Your task to perform on an android device: Search for alienware area 51 on walmart, select the first entry, and add it to the cart. Image 0: 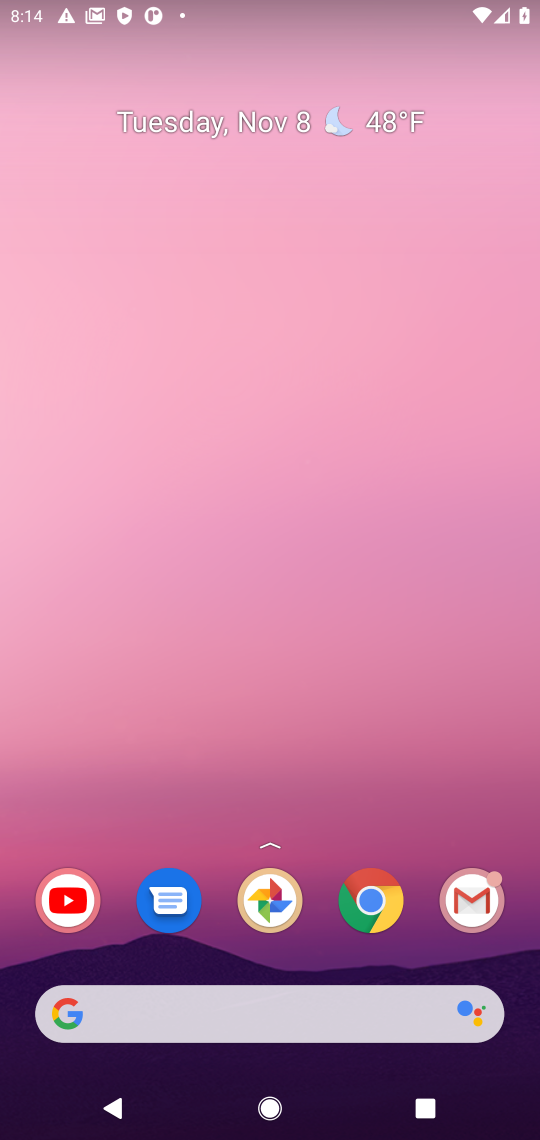
Step 0: click (374, 916)
Your task to perform on an android device: Search for alienware area 51 on walmart, select the first entry, and add it to the cart. Image 1: 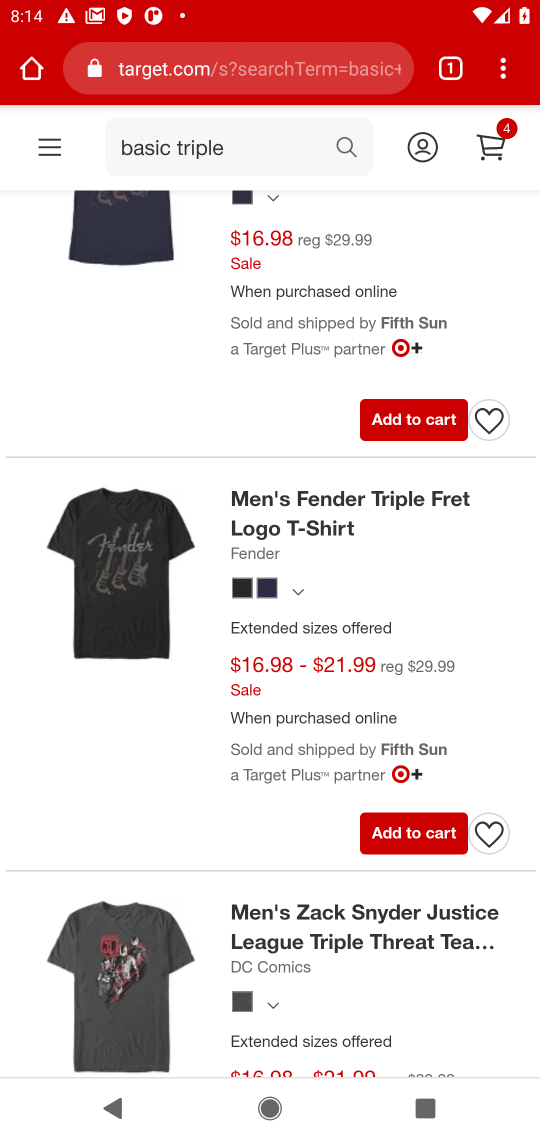
Step 1: click (275, 63)
Your task to perform on an android device: Search for alienware area 51 on walmart, select the first entry, and add it to the cart. Image 2: 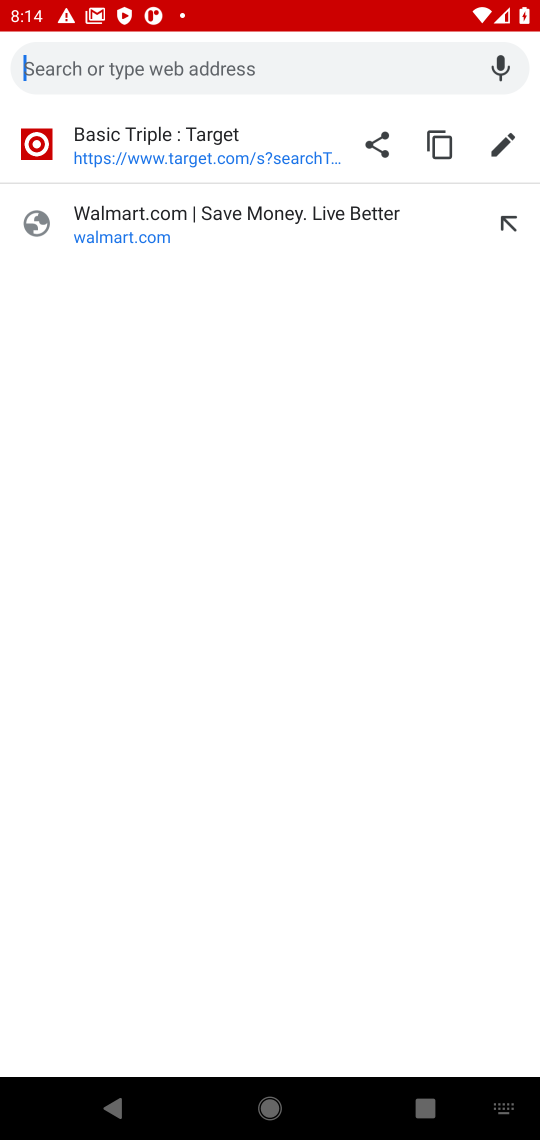
Step 2: type "walmart"
Your task to perform on an android device: Search for alienware area 51 on walmart, select the first entry, and add it to the cart. Image 3: 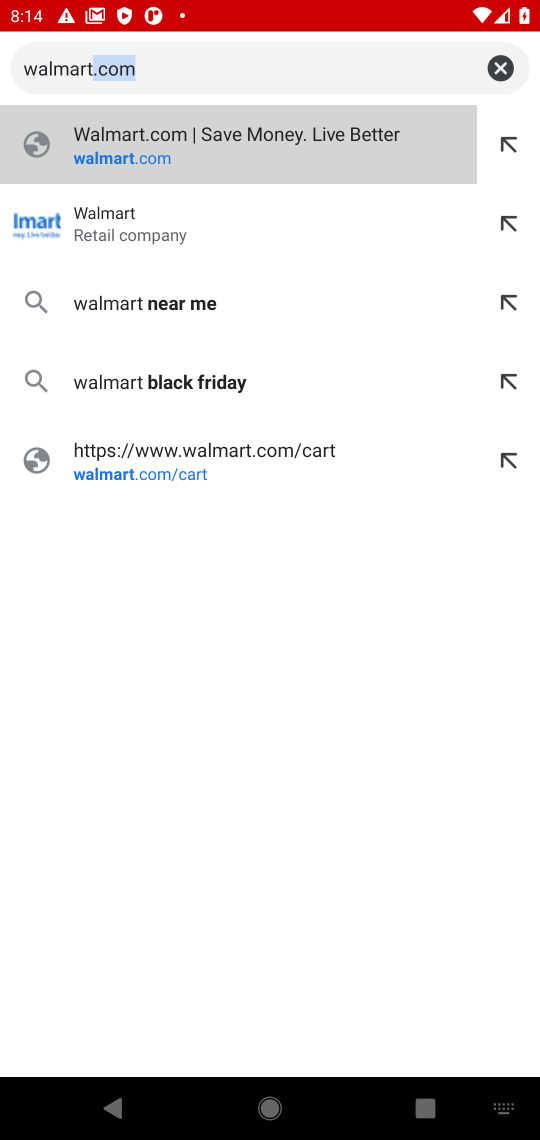
Step 3: type ""
Your task to perform on an android device: Search for alienware area 51 on walmart, select the first entry, and add it to the cart. Image 4: 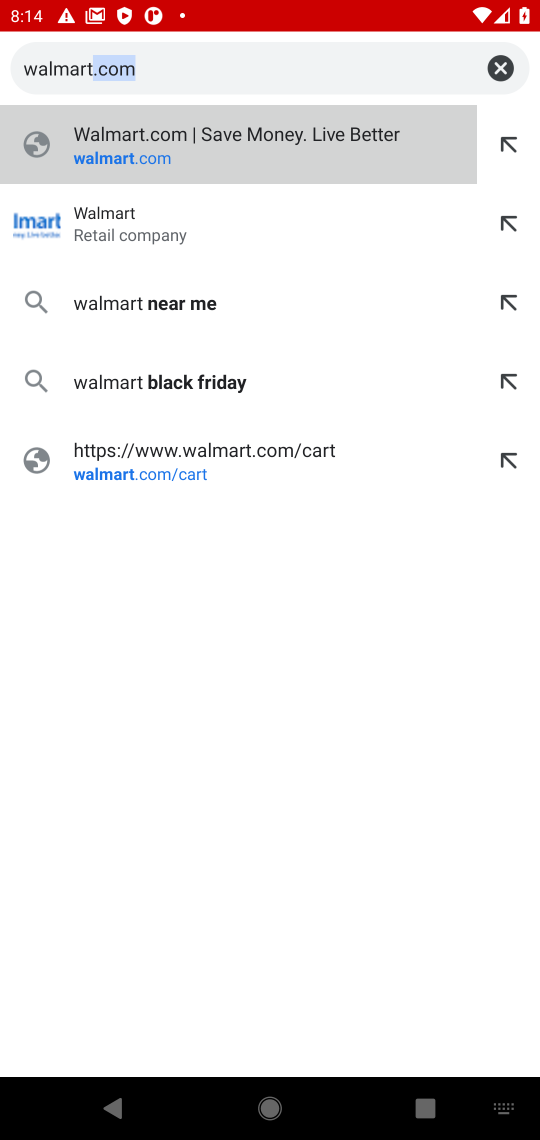
Step 4: click (88, 223)
Your task to perform on an android device: Search for alienware area 51 on walmart, select the first entry, and add it to the cart. Image 5: 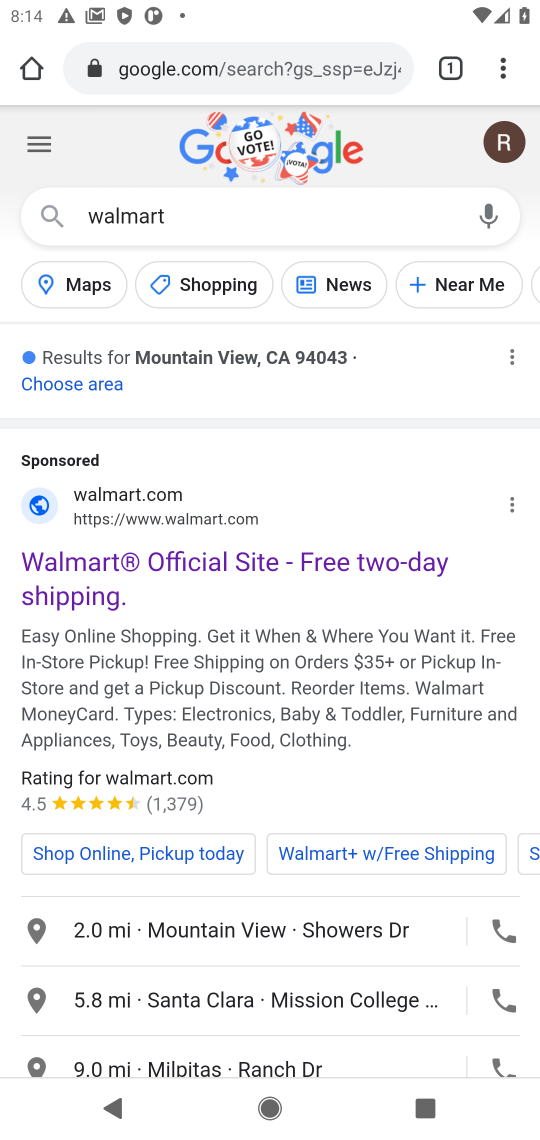
Step 5: drag from (287, 824) to (259, 254)
Your task to perform on an android device: Search for alienware area 51 on walmart, select the first entry, and add it to the cart. Image 6: 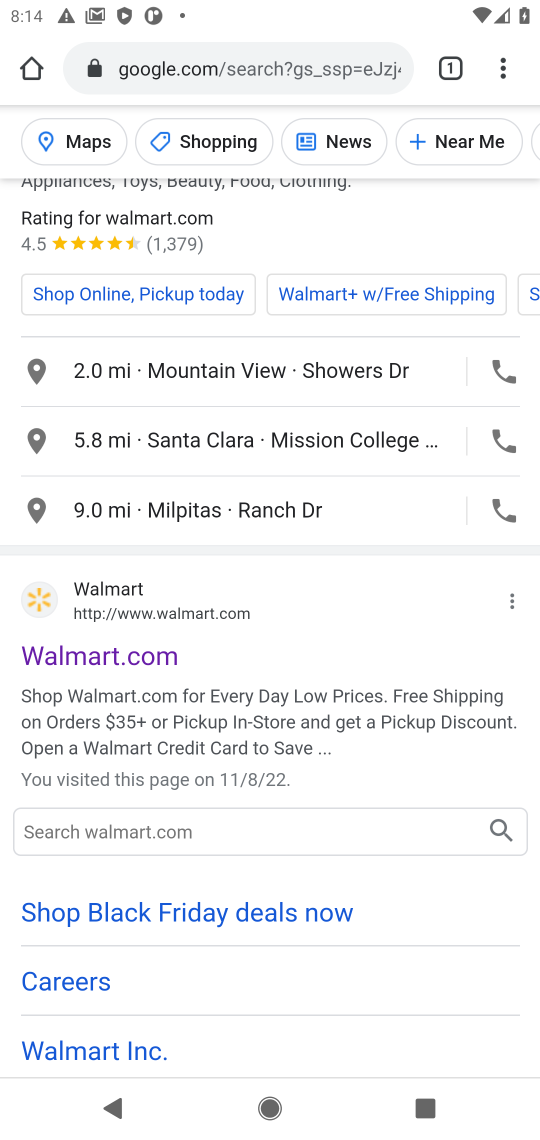
Step 6: click (62, 654)
Your task to perform on an android device: Search for alienware area 51 on walmart, select the first entry, and add it to the cart. Image 7: 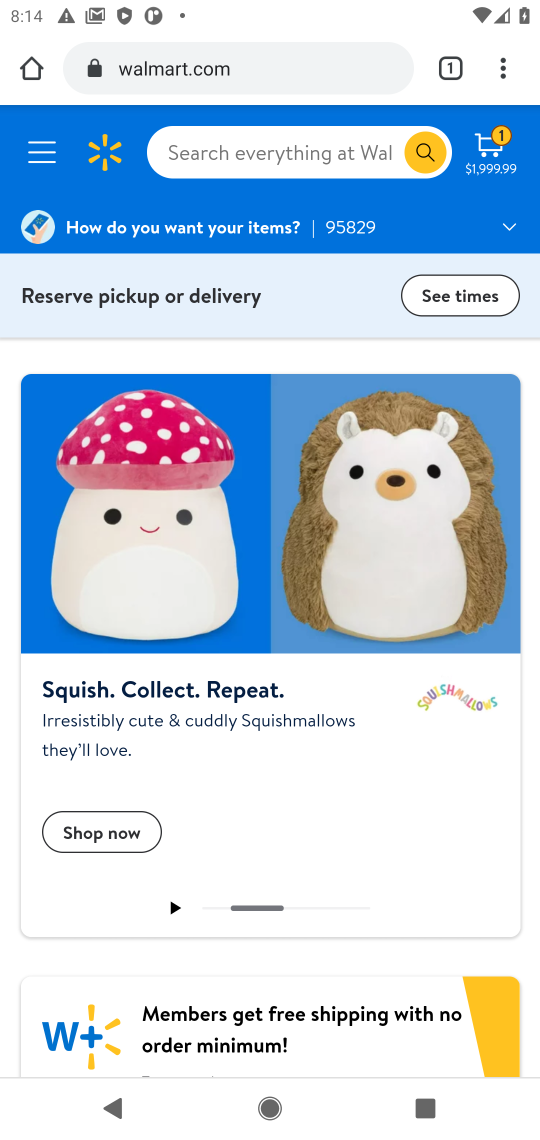
Step 7: click (230, 137)
Your task to perform on an android device: Search for alienware area 51 on walmart, select the first entry, and add it to the cart. Image 8: 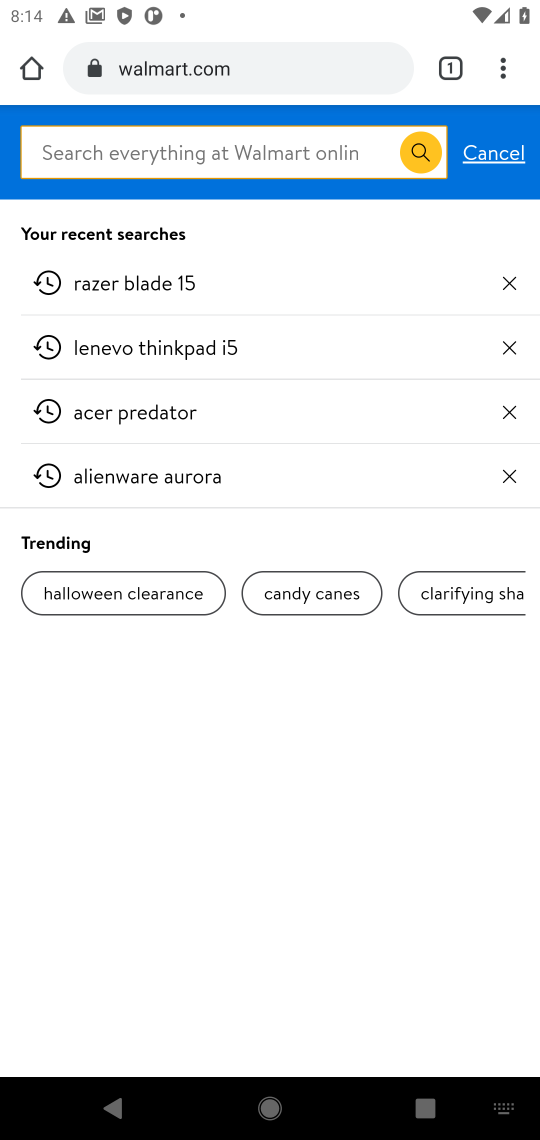
Step 8: type "alienware area 51"
Your task to perform on an android device: Search for alienware area 51 on walmart, select the first entry, and add it to the cart. Image 9: 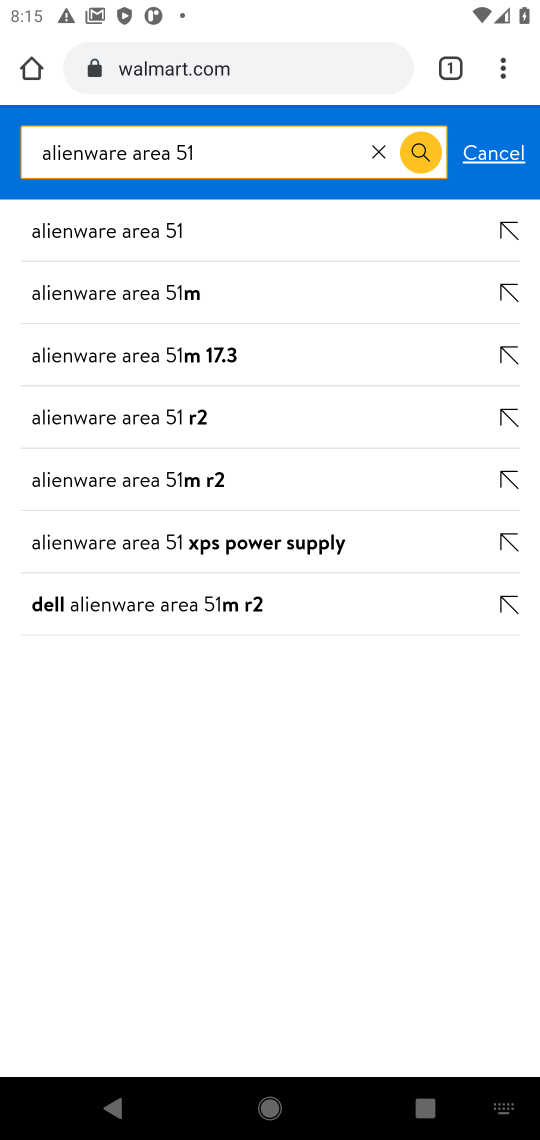
Step 9: click (195, 285)
Your task to perform on an android device: Search for alienware area 51 on walmart, select the first entry, and add it to the cart. Image 10: 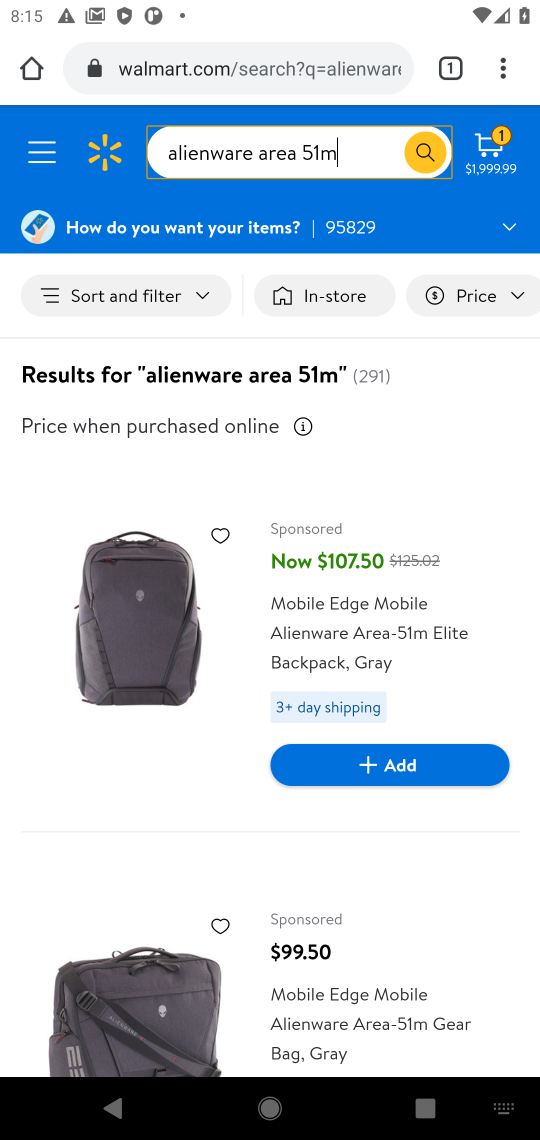
Step 10: drag from (189, 767) to (247, 334)
Your task to perform on an android device: Search for alienware area 51 on walmart, select the first entry, and add it to the cart. Image 11: 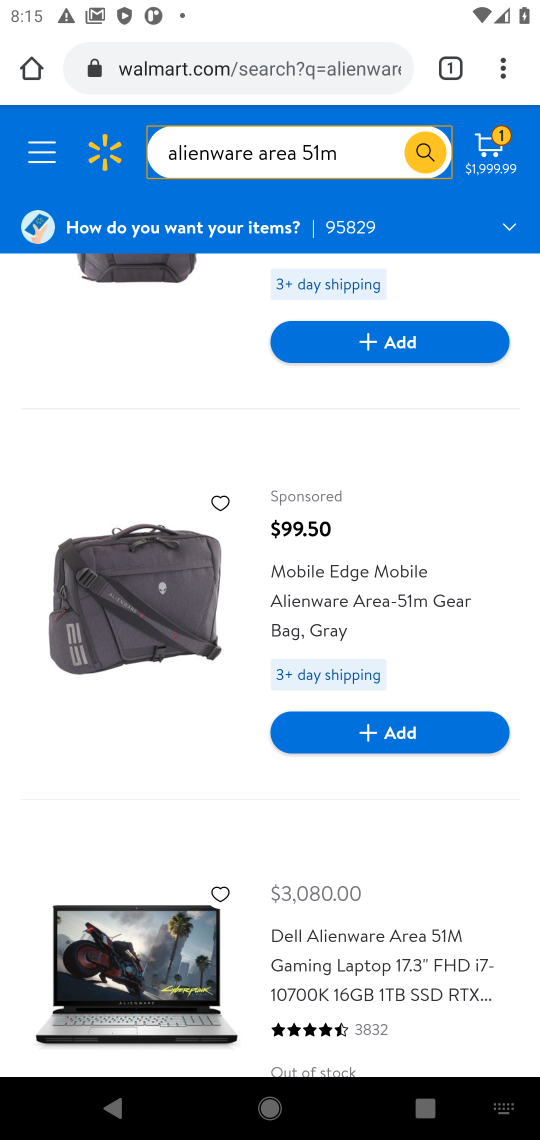
Step 11: click (340, 968)
Your task to perform on an android device: Search for alienware area 51 on walmart, select the first entry, and add it to the cart. Image 12: 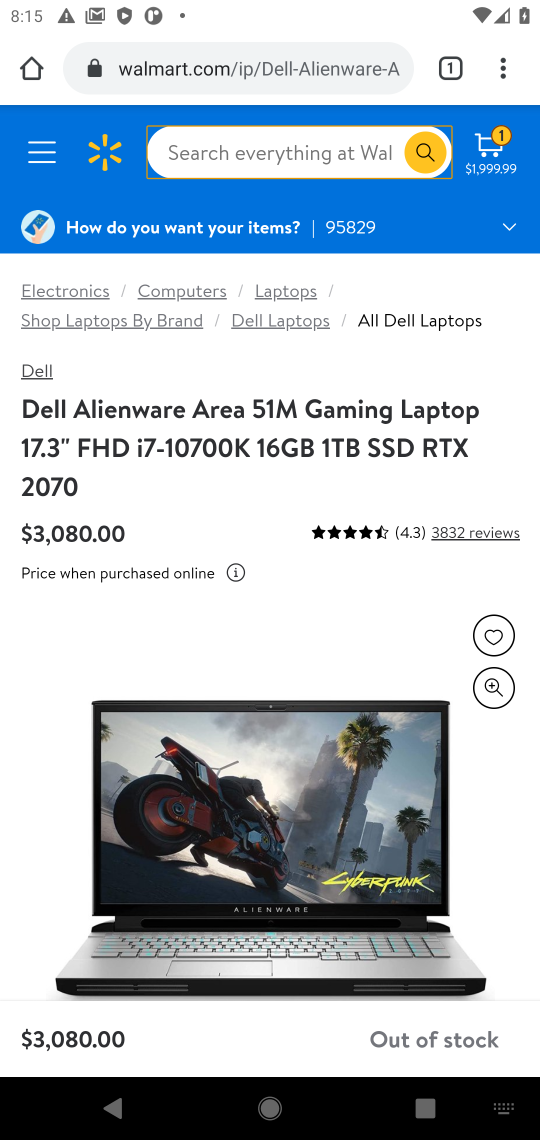
Step 12: drag from (192, 694) to (197, 299)
Your task to perform on an android device: Search for alienware area 51 on walmart, select the first entry, and add it to the cart. Image 13: 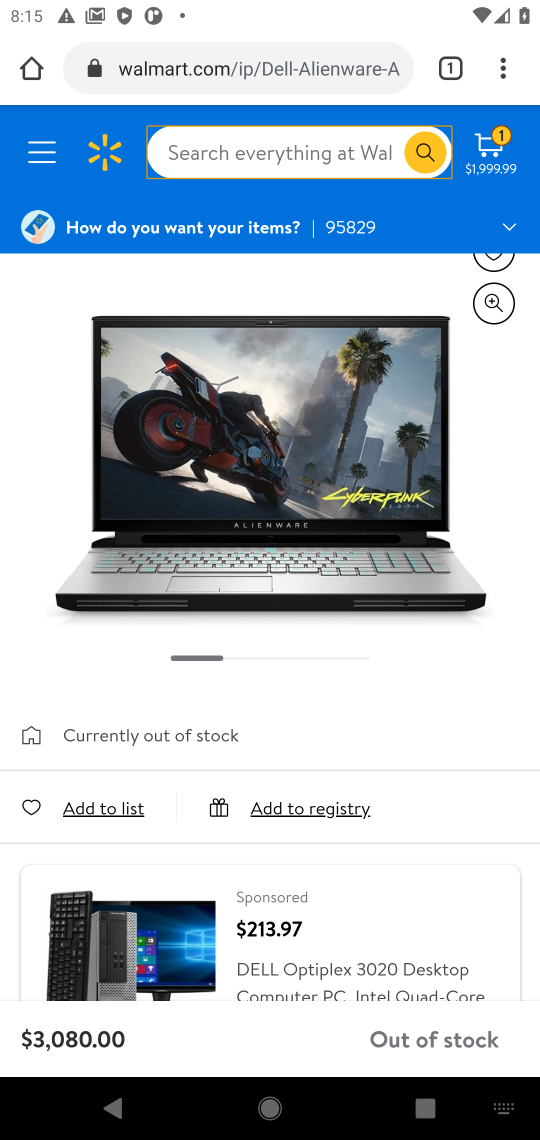
Step 13: drag from (241, 876) to (249, 407)
Your task to perform on an android device: Search for alienware area 51 on walmart, select the first entry, and add it to the cart. Image 14: 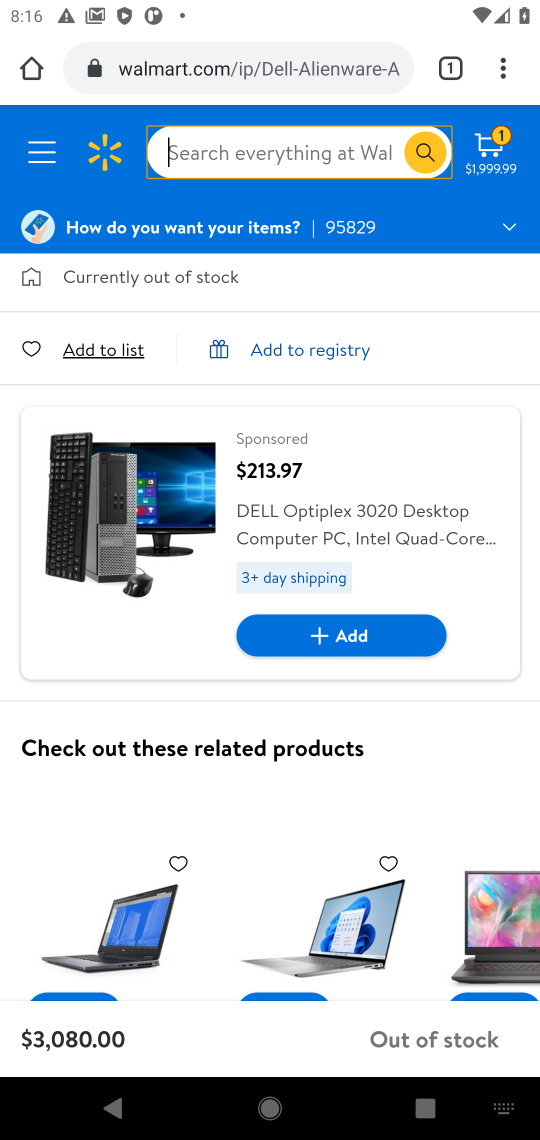
Step 14: drag from (381, 426) to (363, 845)
Your task to perform on an android device: Search for alienware area 51 on walmart, select the first entry, and add it to the cart. Image 15: 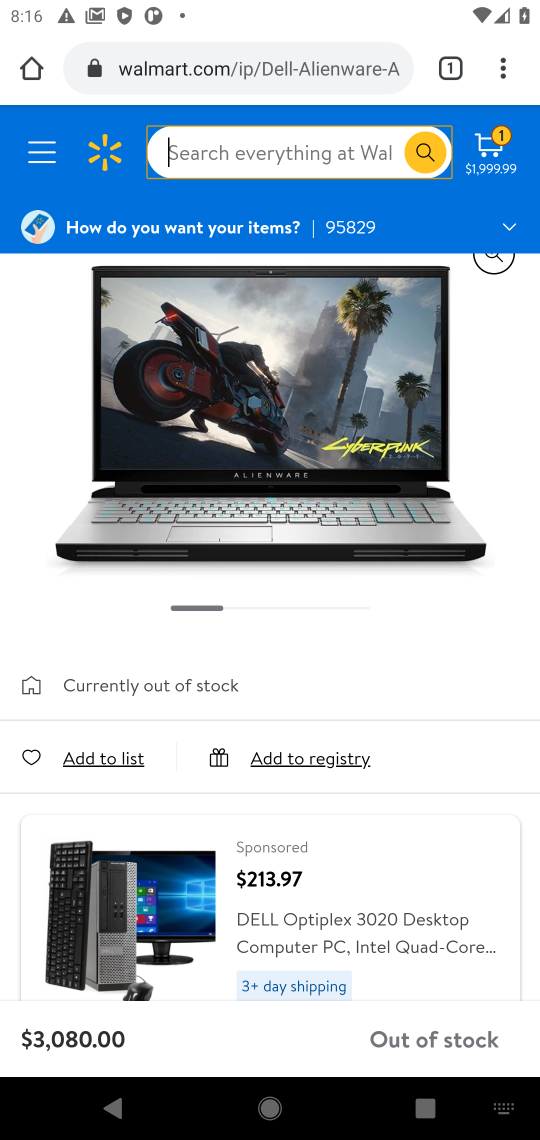
Step 15: click (254, 442)
Your task to perform on an android device: Search for alienware area 51 on walmart, select the first entry, and add it to the cart. Image 16: 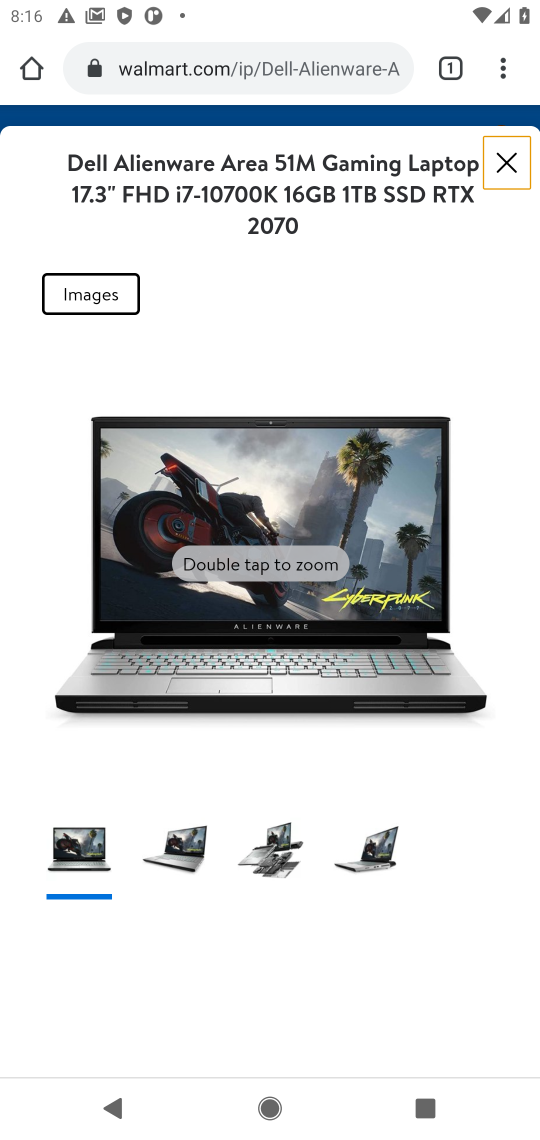
Step 16: drag from (371, 779) to (414, 218)
Your task to perform on an android device: Search for alienware area 51 on walmart, select the first entry, and add it to the cart. Image 17: 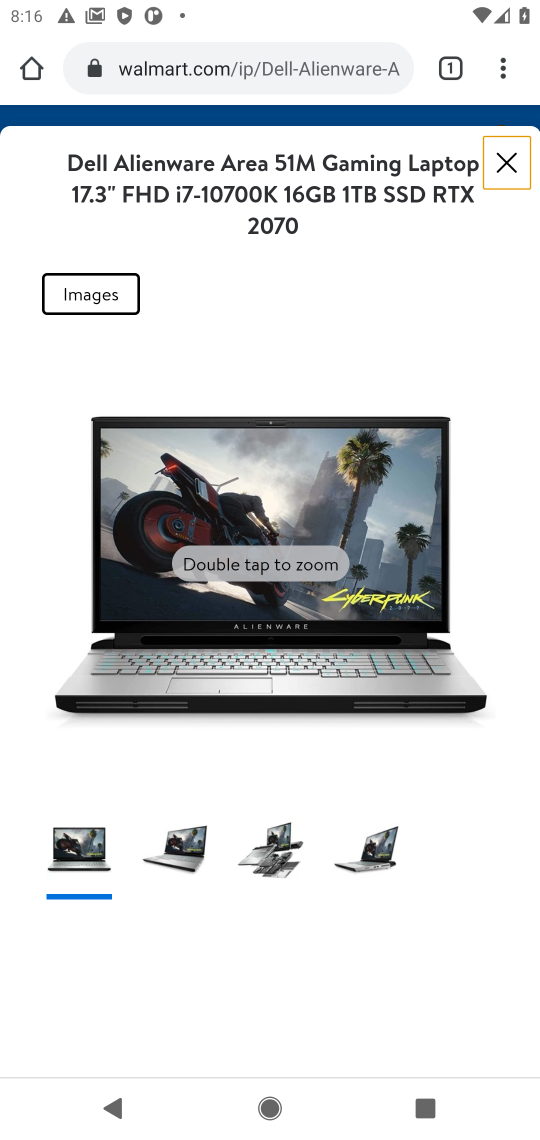
Step 17: drag from (169, 828) to (186, 239)
Your task to perform on an android device: Search for alienware area 51 on walmart, select the first entry, and add it to the cart. Image 18: 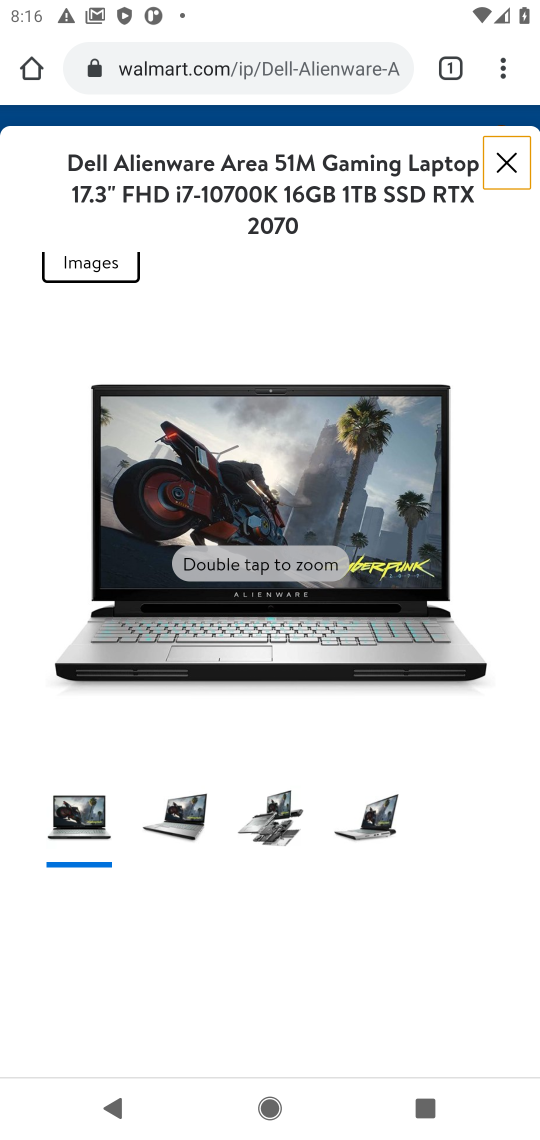
Step 18: drag from (245, 874) to (254, 392)
Your task to perform on an android device: Search for alienware area 51 on walmart, select the first entry, and add it to the cart. Image 19: 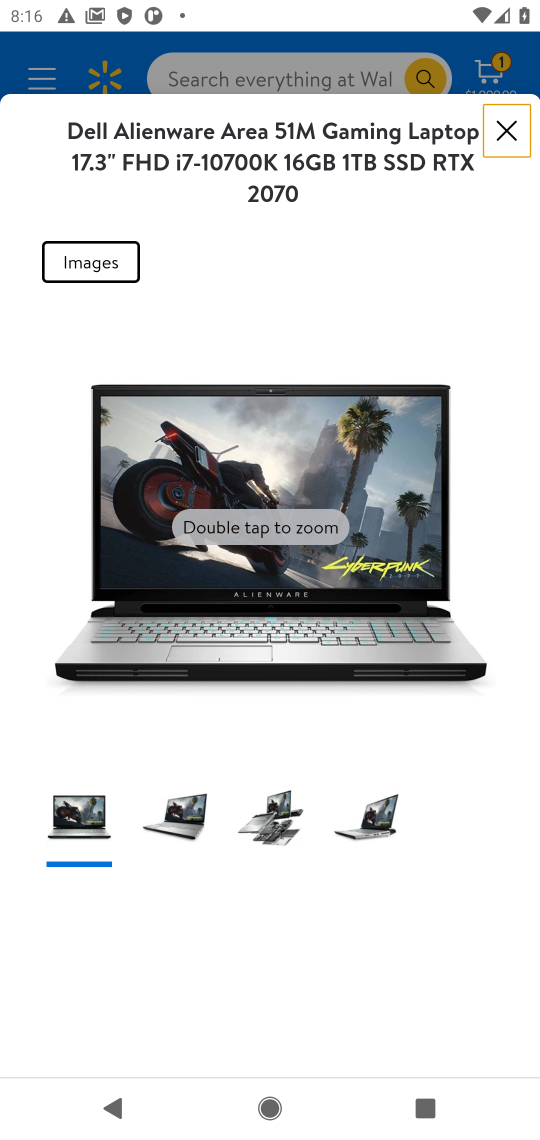
Step 19: drag from (215, 840) to (224, 532)
Your task to perform on an android device: Search for alienware area 51 on walmart, select the first entry, and add it to the cart. Image 20: 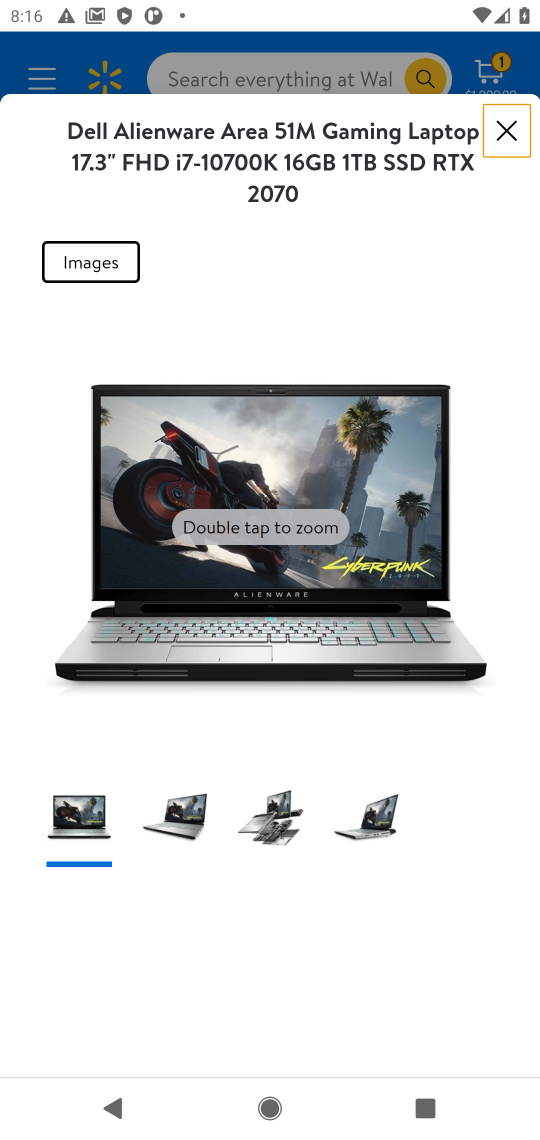
Step 20: drag from (359, 734) to (357, 176)
Your task to perform on an android device: Search for alienware area 51 on walmart, select the first entry, and add it to the cart. Image 21: 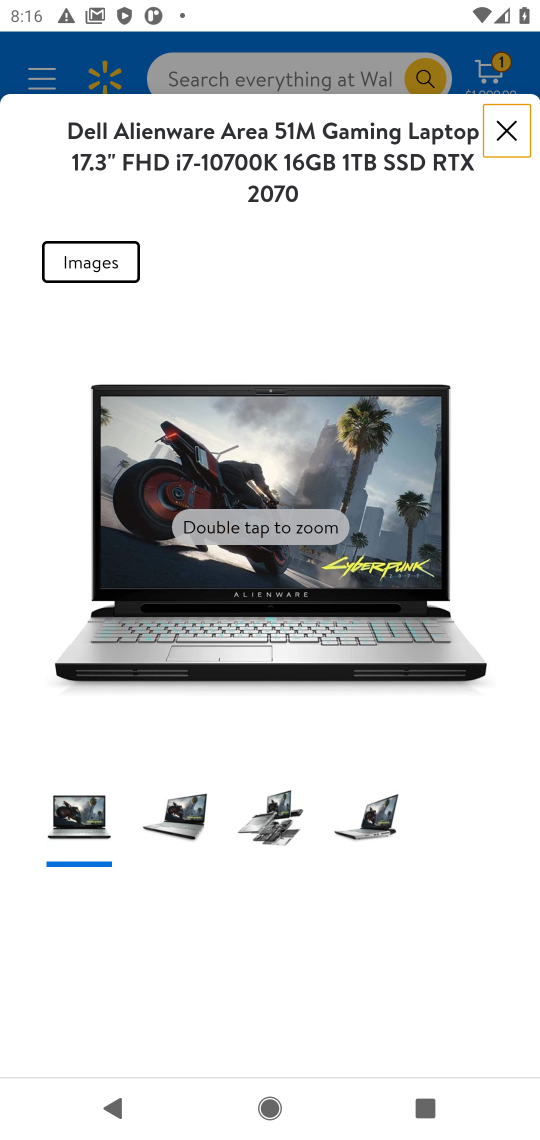
Step 21: click (517, 134)
Your task to perform on an android device: Search for alienware area 51 on walmart, select the first entry, and add it to the cart. Image 22: 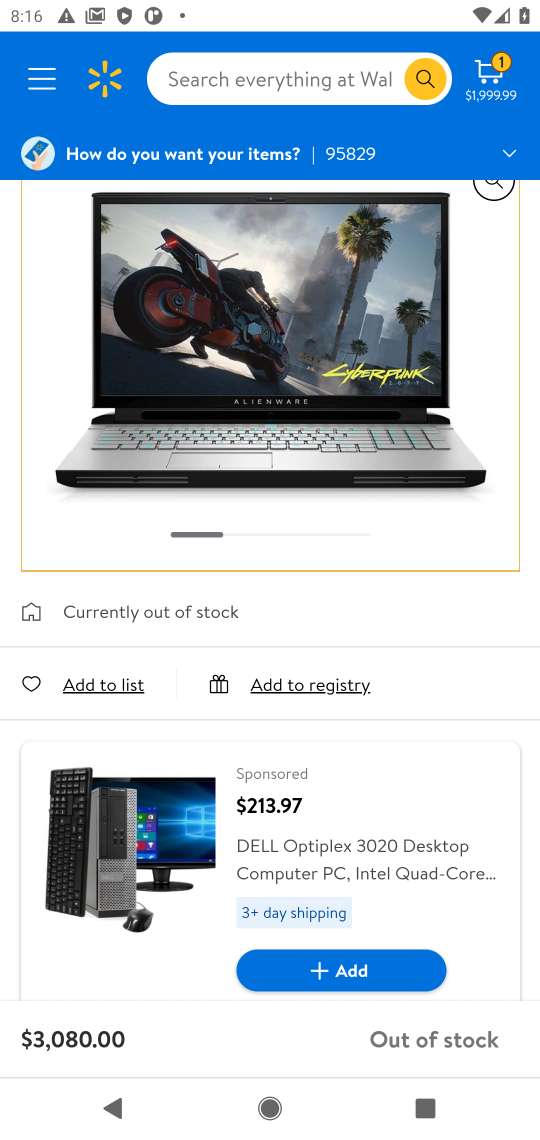
Step 22: drag from (273, 869) to (261, 655)
Your task to perform on an android device: Search for alienware area 51 on walmart, select the first entry, and add it to the cart. Image 23: 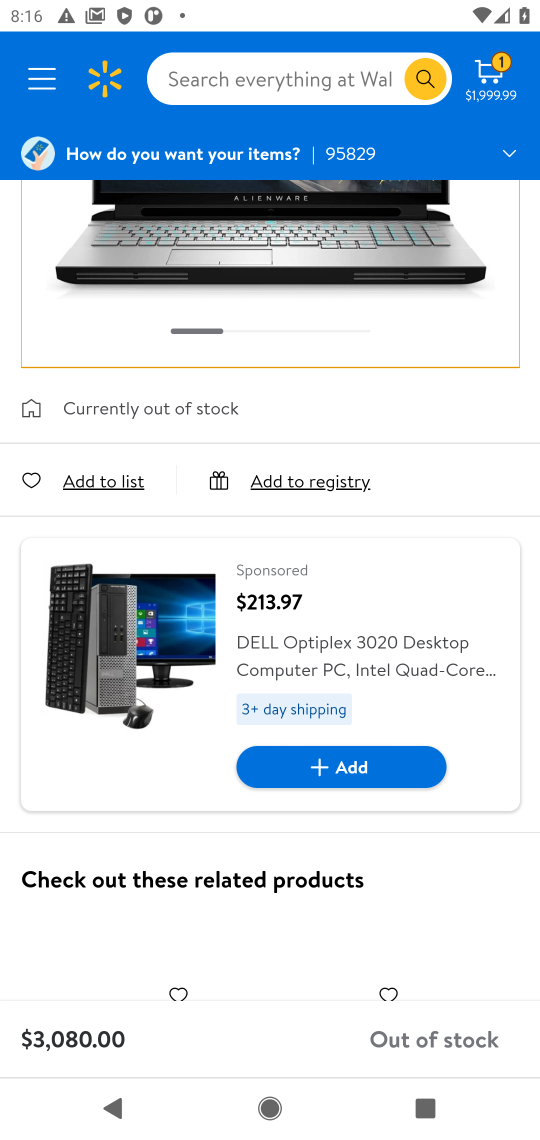
Step 23: click (132, 479)
Your task to perform on an android device: Search for alienware area 51 on walmart, select the first entry, and add it to the cart. Image 24: 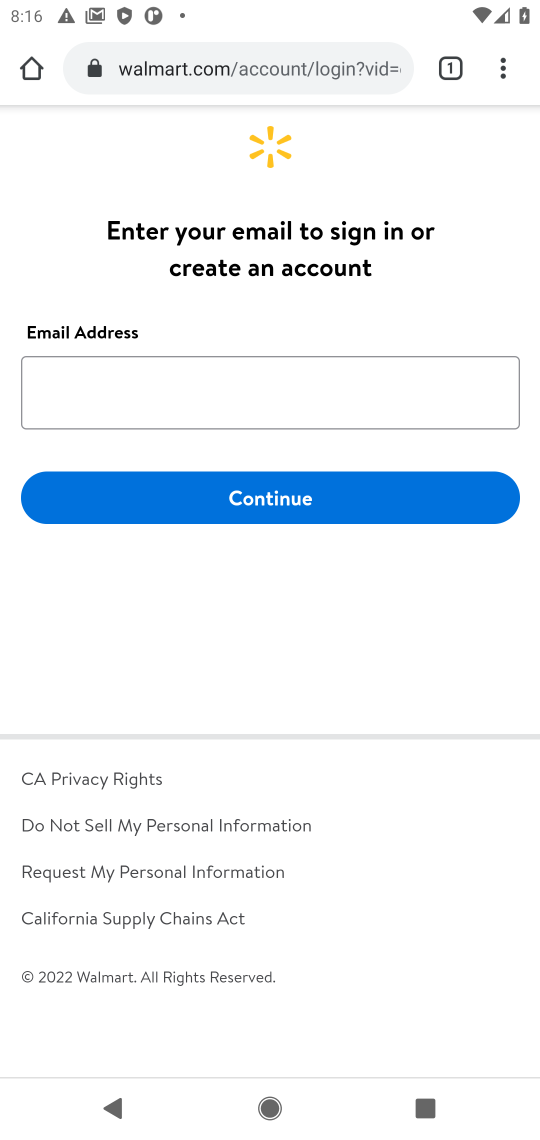
Step 24: task complete